Your task to perform on an android device: open a bookmark in the chrome app Image 0: 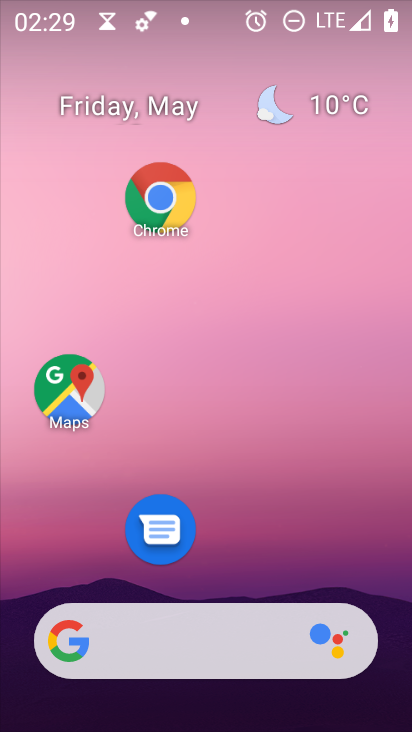
Step 0: drag from (227, 562) to (279, 185)
Your task to perform on an android device: open a bookmark in the chrome app Image 1: 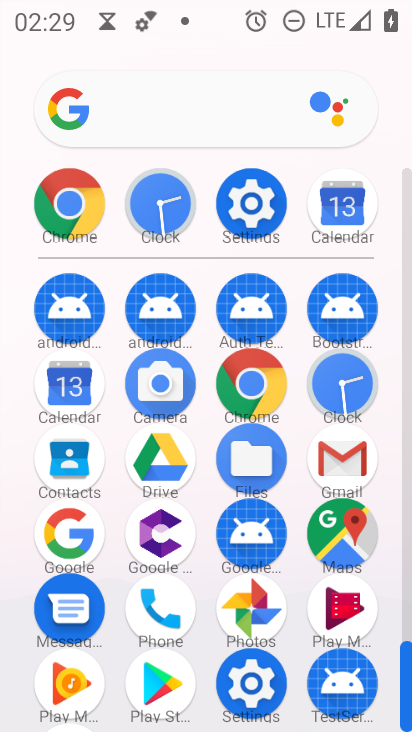
Step 1: click (71, 193)
Your task to perform on an android device: open a bookmark in the chrome app Image 2: 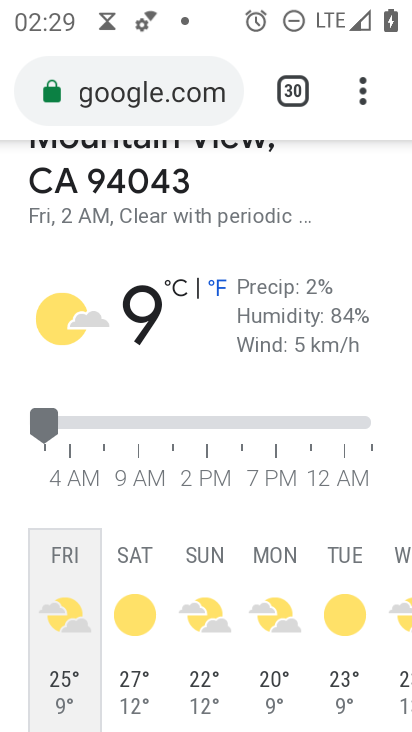
Step 2: click (346, 80)
Your task to perform on an android device: open a bookmark in the chrome app Image 3: 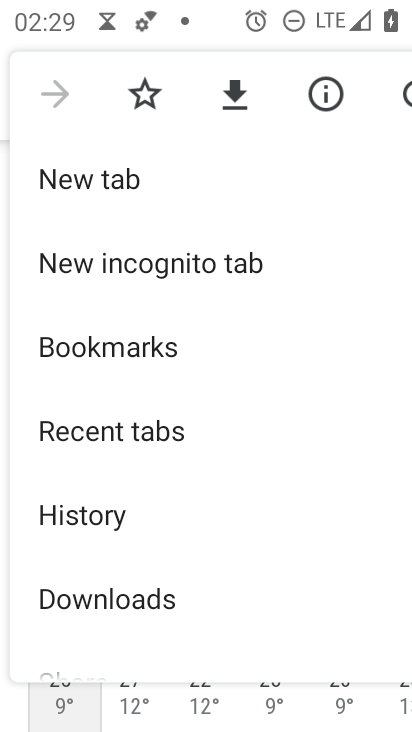
Step 3: click (74, 342)
Your task to perform on an android device: open a bookmark in the chrome app Image 4: 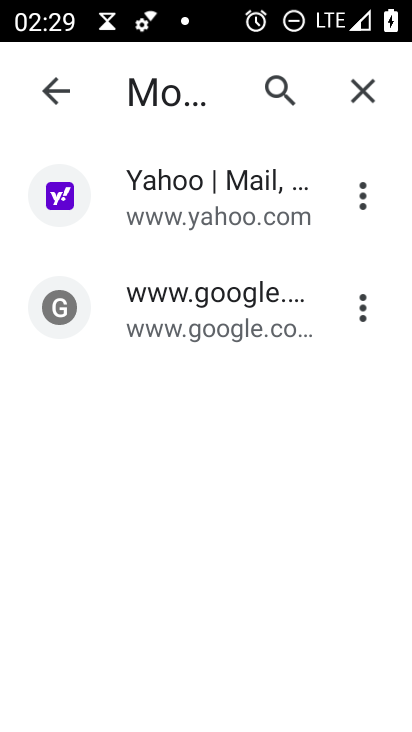
Step 4: task complete